Your task to perform on an android device: open the mobile data screen to see how much data has been used Image 0: 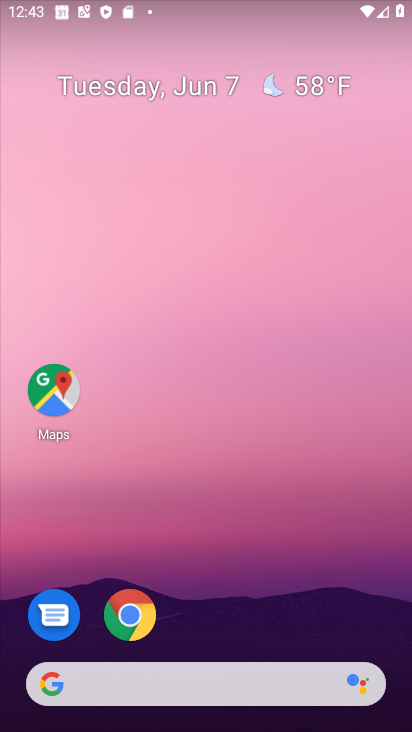
Step 0: drag from (230, 628) to (233, 0)
Your task to perform on an android device: open the mobile data screen to see how much data has been used Image 1: 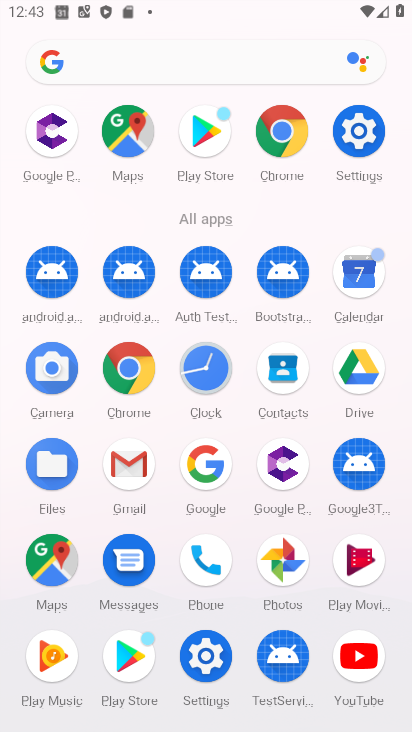
Step 1: click (360, 131)
Your task to perform on an android device: open the mobile data screen to see how much data has been used Image 2: 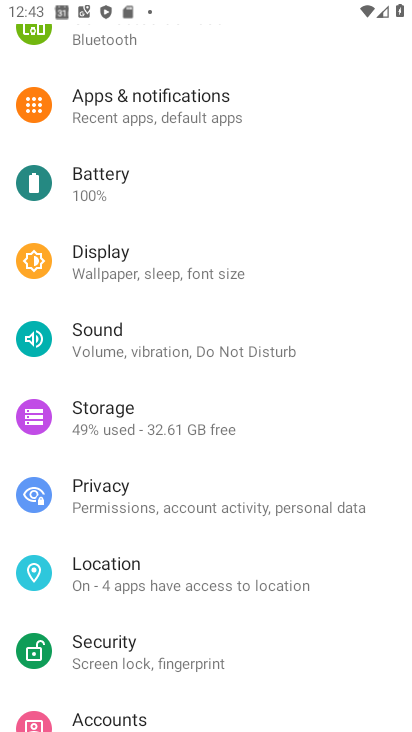
Step 2: drag from (172, 183) to (198, 274)
Your task to perform on an android device: open the mobile data screen to see how much data has been used Image 3: 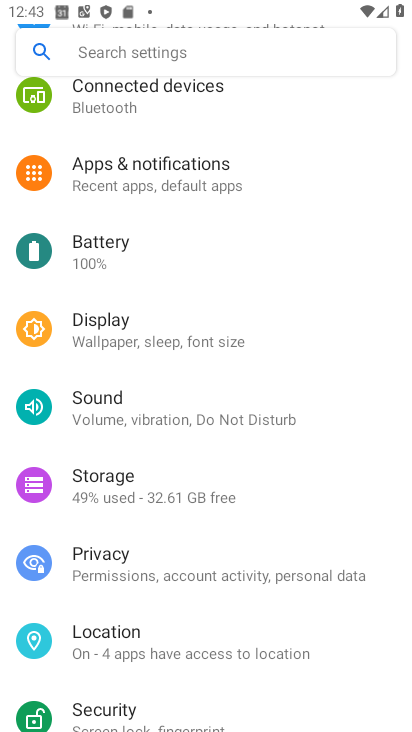
Step 3: drag from (184, 131) to (223, 276)
Your task to perform on an android device: open the mobile data screen to see how much data has been used Image 4: 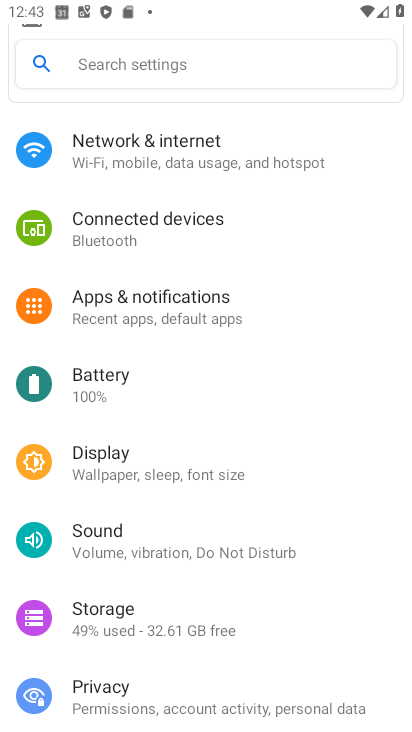
Step 4: click (167, 162)
Your task to perform on an android device: open the mobile data screen to see how much data has been used Image 5: 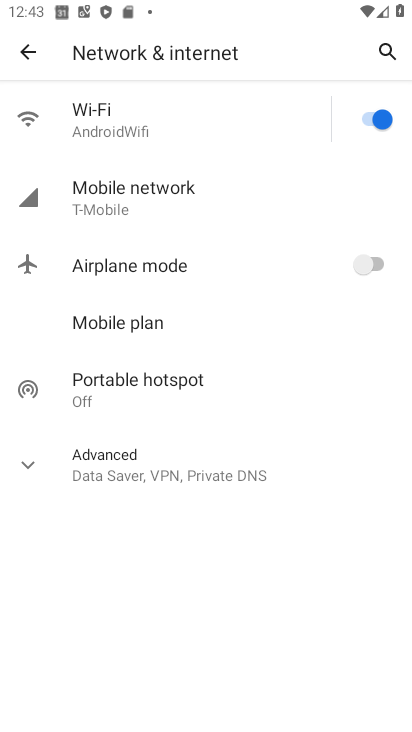
Step 5: click (159, 186)
Your task to perform on an android device: open the mobile data screen to see how much data has been used Image 6: 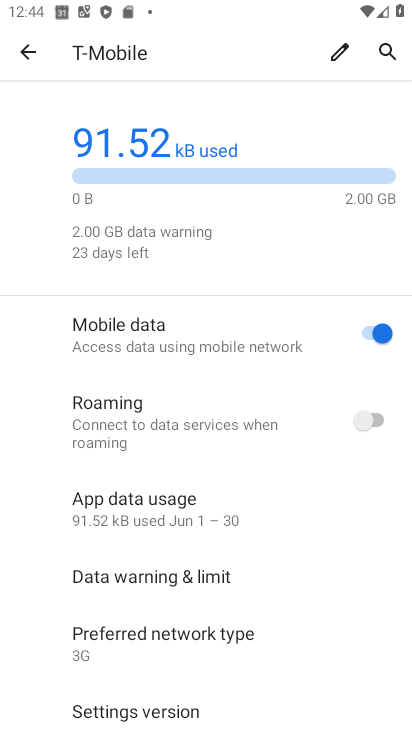
Step 6: task complete